Your task to perform on an android device: turn off sleep mode Image 0: 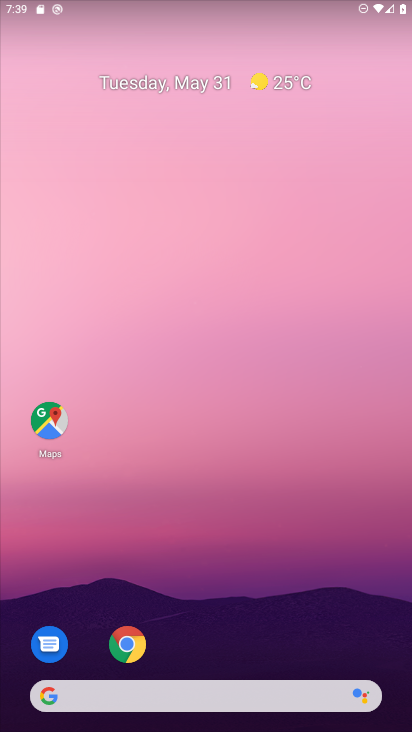
Step 0: drag from (233, 727) to (281, 32)
Your task to perform on an android device: turn off sleep mode Image 1: 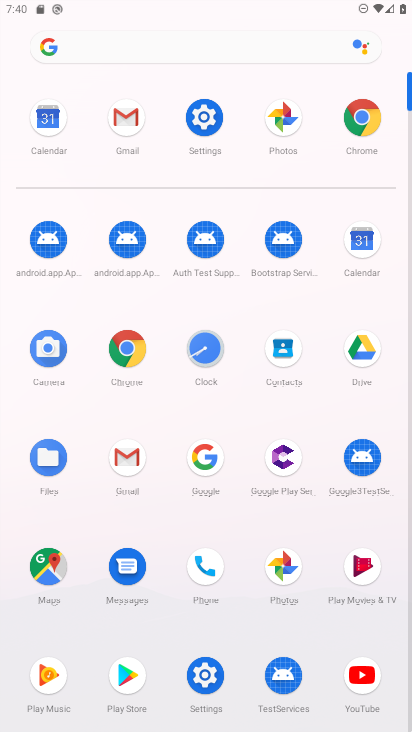
Step 1: click (195, 132)
Your task to perform on an android device: turn off sleep mode Image 2: 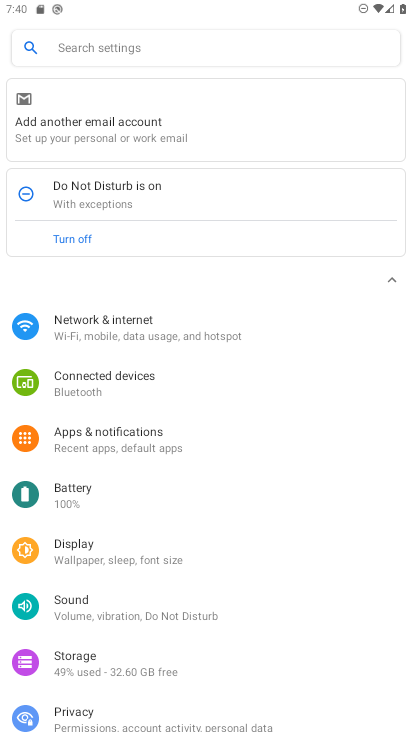
Step 2: click (147, 50)
Your task to perform on an android device: turn off sleep mode Image 3: 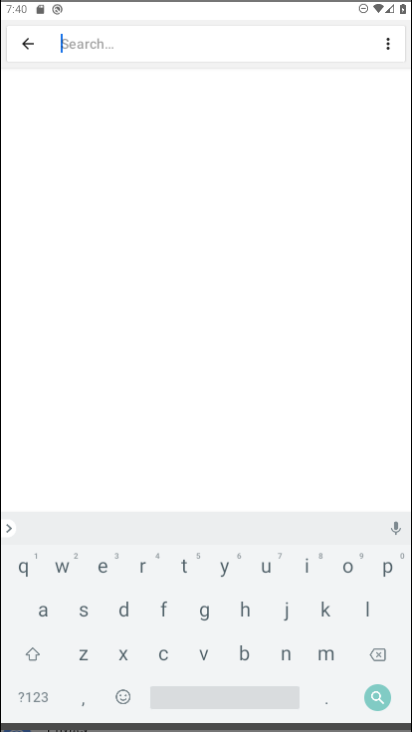
Step 3: click (109, 42)
Your task to perform on an android device: turn off sleep mode Image 4: 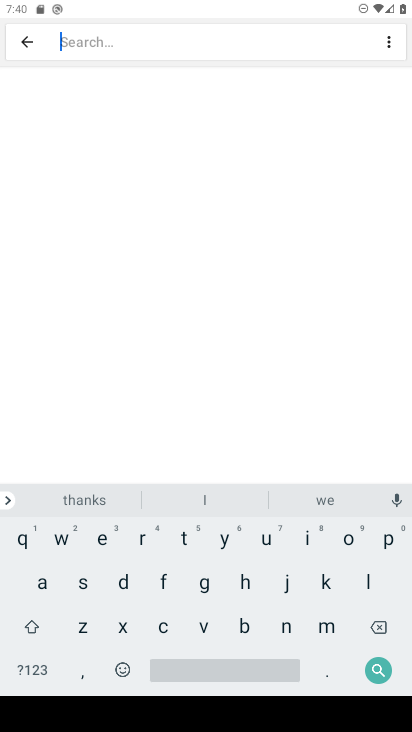
Step 4: click (68, 52)
Your task to perform on an android device: turn off sleep mode Image 5: 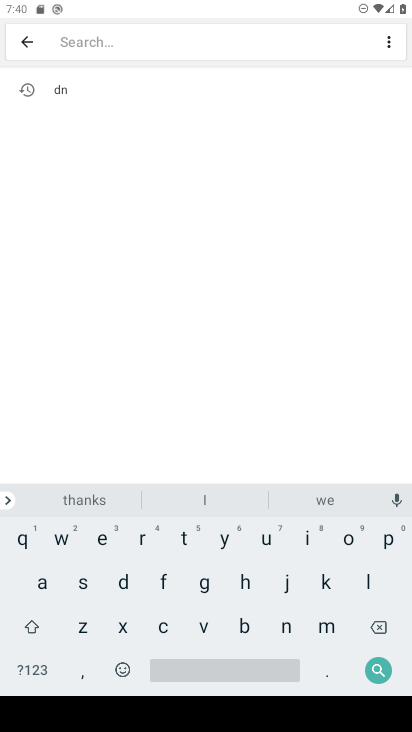
Step 5: click (85, 581)
Your task to perform on an android device: turn off sleep mode Image 6: 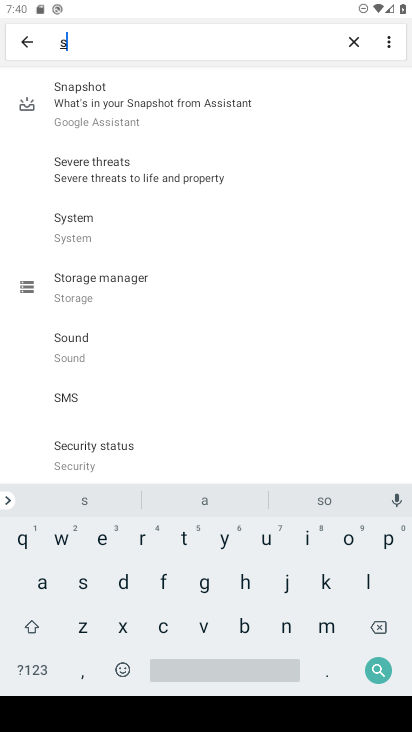
Step 6: click (370, 583)
Your task to perform on an android device: turn off sleep mode Image 7: 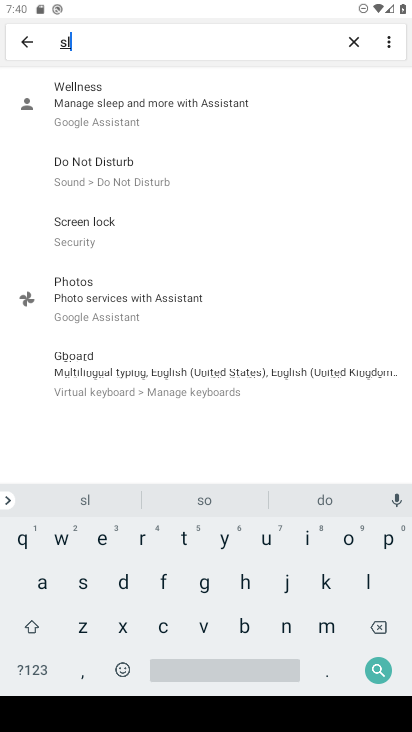
Step 7: click (105, 99)
Your task to perform on an android device: turn off sleep mode Image 8: 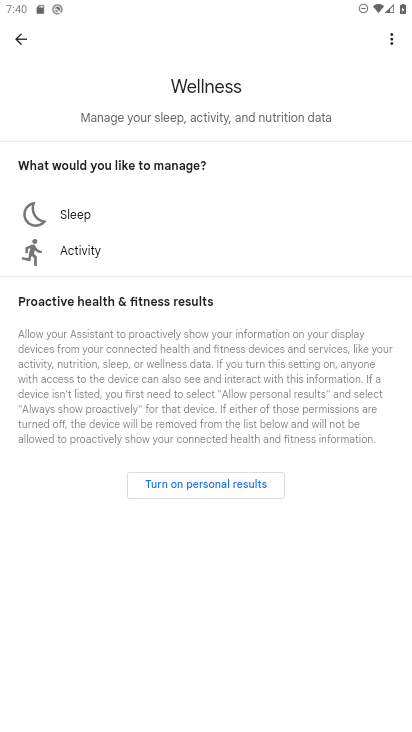
Step 8: click (80, 205)
Your task to perform on an android device: turn off sleep mode Image 9: 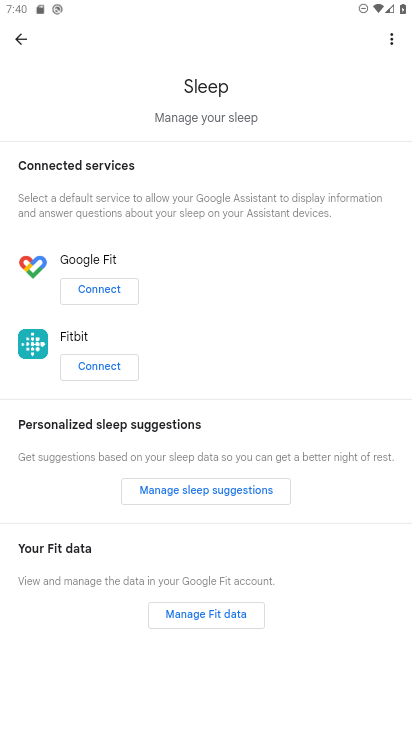
Step 9: task complete